Your task to perform on an android device: Go to battery settings Image 0: 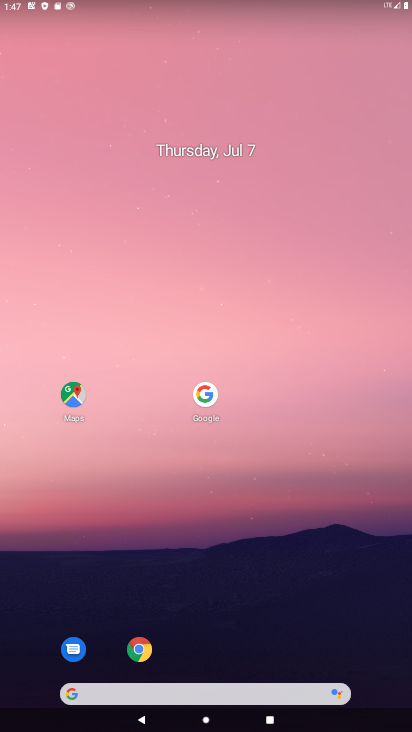
Step 0: press home button
Your task to perform on an android device: Go to battery settings Image 1: 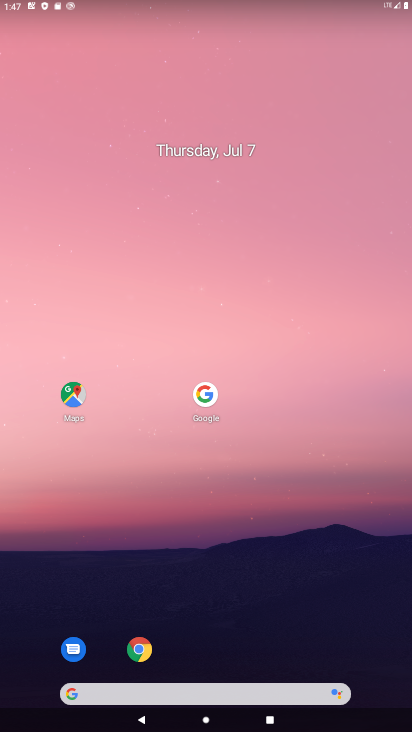
Step 1: drag from (336, 465) to (326, 22)
Your task to perform on an android device: Go to battery settings Image 2: 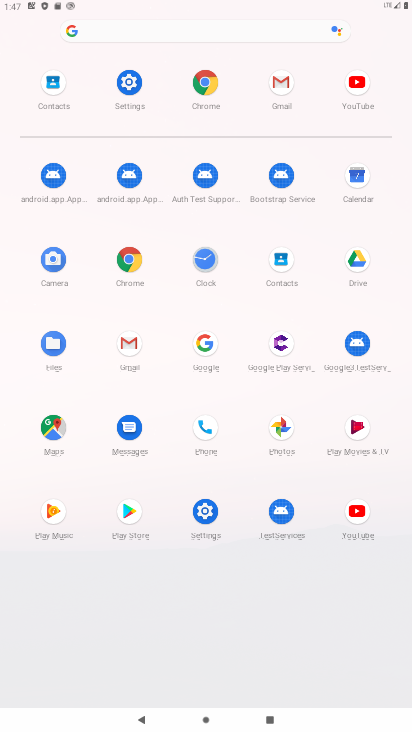
Step 2: click (133, 82)
Your task to perform on an android device: Go to battery settings Image 3: 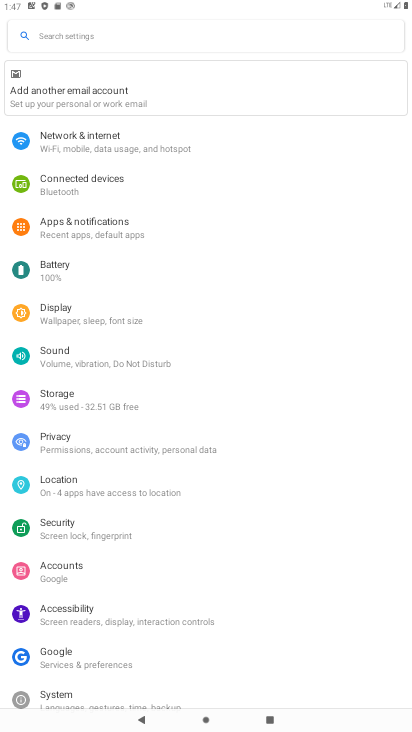
Step 3: click (71, 265)
Your task to perform on an android device: Go to battery settings Image 4: 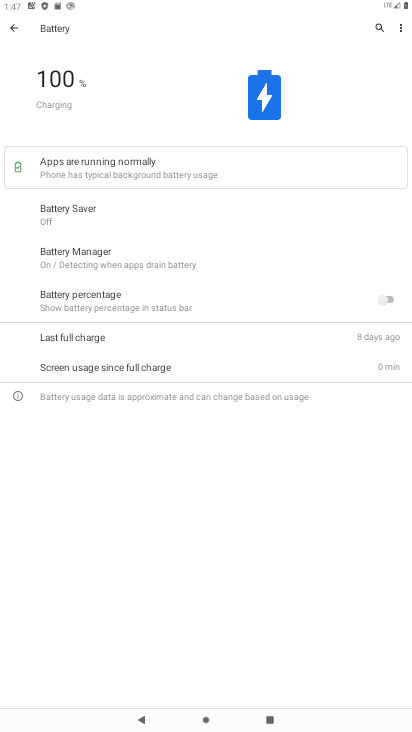
Step 4: task complete